Your task to perform on an android device: all mails in gmail Image 0: 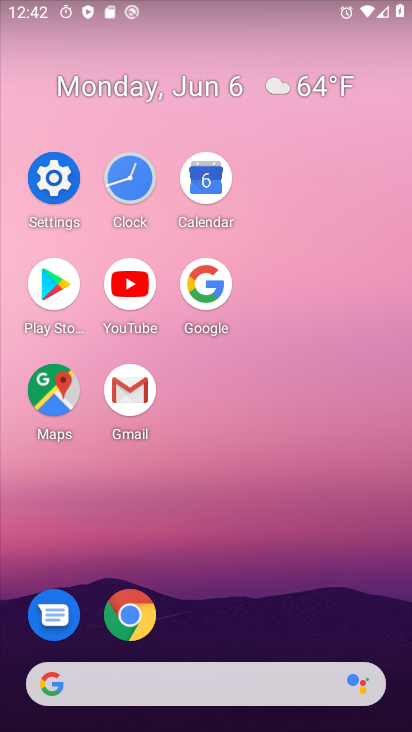
Step 0: click (108, 390)
Your task to perform on an android device: all mails in gmail Image 1: 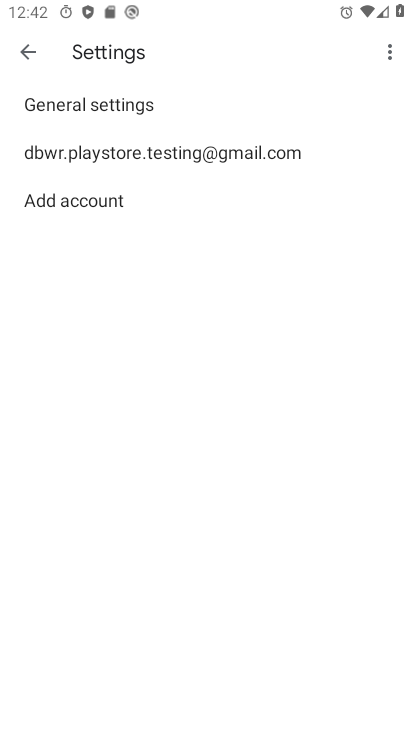
Step 1: click (14, 66)
Your task to perform on an android device: all mails in gmail Image 2: 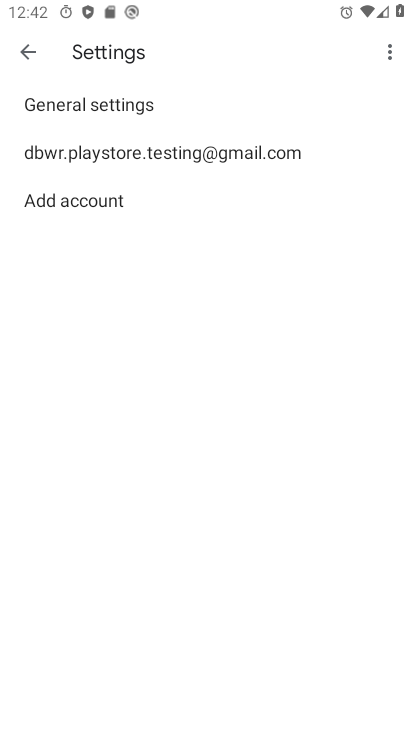
Step 2: click (33, 47)
Your task to perform on an android device: all mails in gmail Image 3: 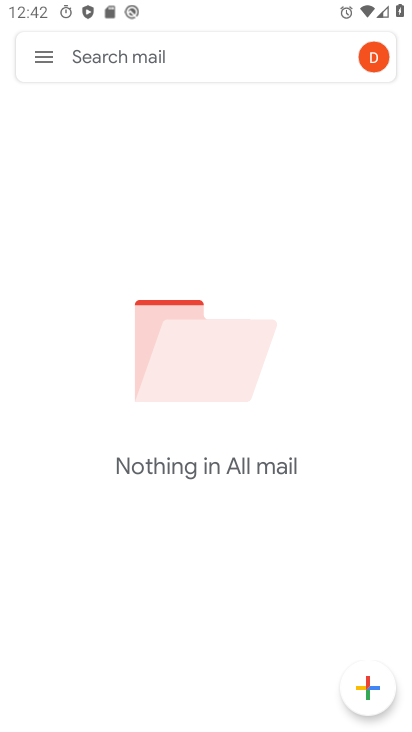
Step 3: click (54, 60)
Your task to perform on an android device: all mails in gmail Image 4: 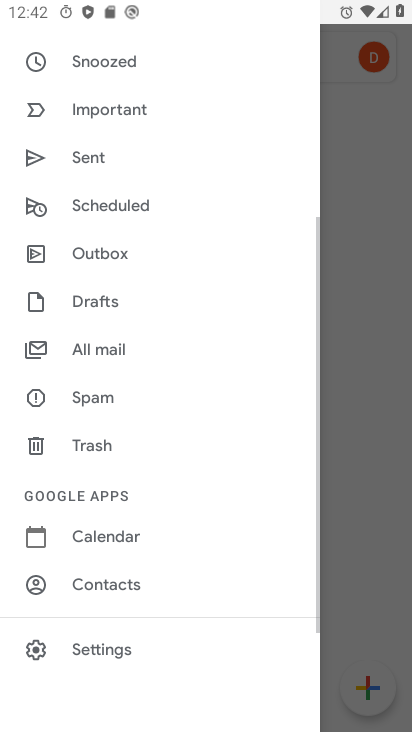
Step 4: click (117, 339)
Your task to perform on an android device: all mails in gmail Image 5: 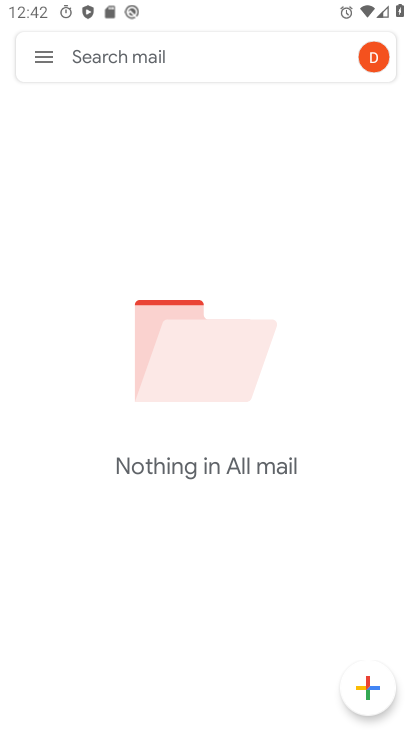
Step 5: task complete